Your task to perform on an android device: Open the map Image 0: 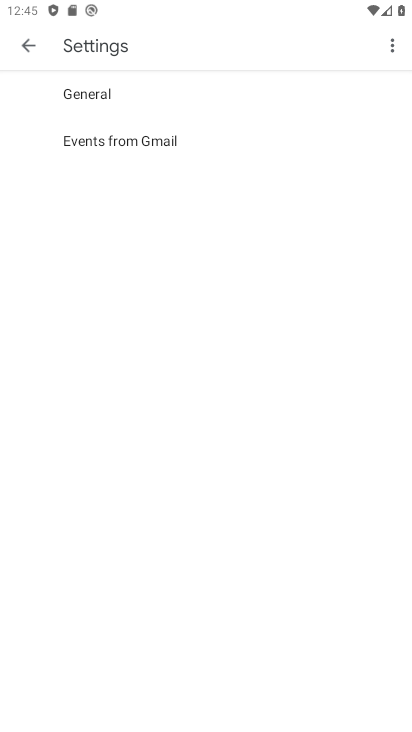
Step 0: press home button
Your task to perform on an android device: Open the map Image 1: 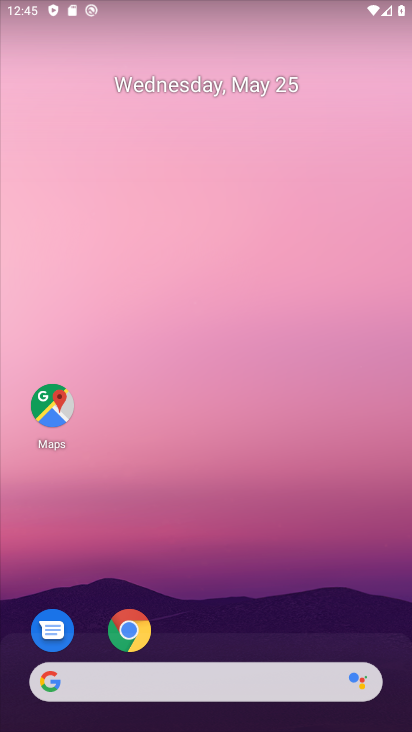
Step 1: drag from (214, 647) to (247, 119)
Your task to perform on an android device: Open the map Image 2: 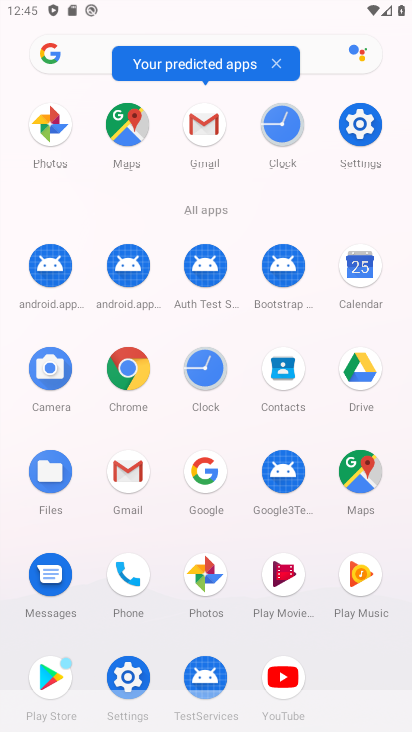
Step 2: click (352, 469)
Your task to perform on an android device: Open the map Image 3: 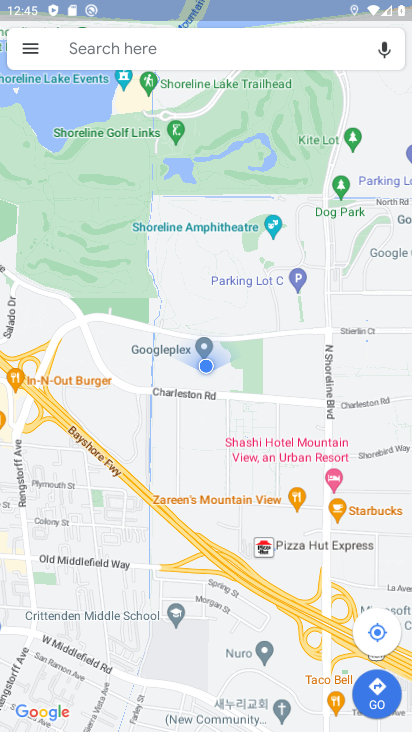
Step 3: task complete